Your task to perform on an android device: Open Youtube and go to the subscriptions tab Image 0: 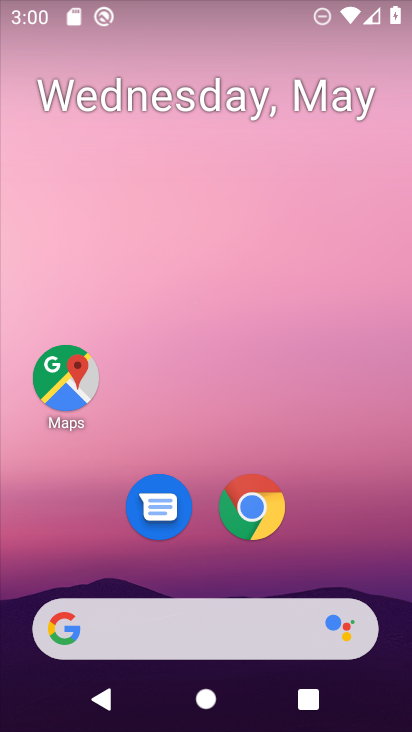
Step 0: drag from (215, 570) to (287, 106)
Your task to perform on an android device: Open Youtube and go to the subscriptions tab Image 1: 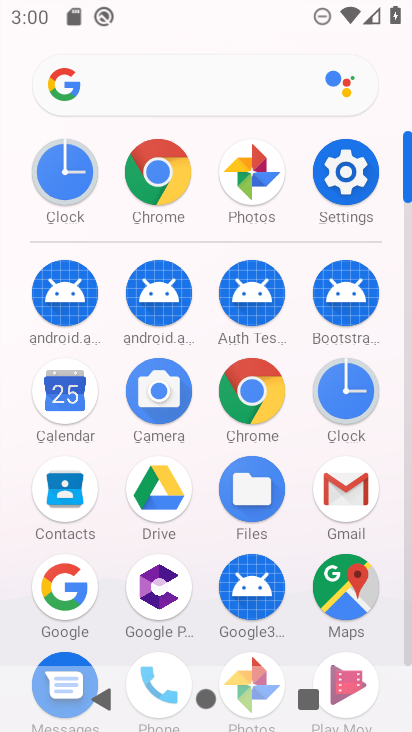
Step 1: drag from (300, 604) to (311, 314)
Your task to perform on an android device: Open Youtube and go to the subscriptions tab Image 2: 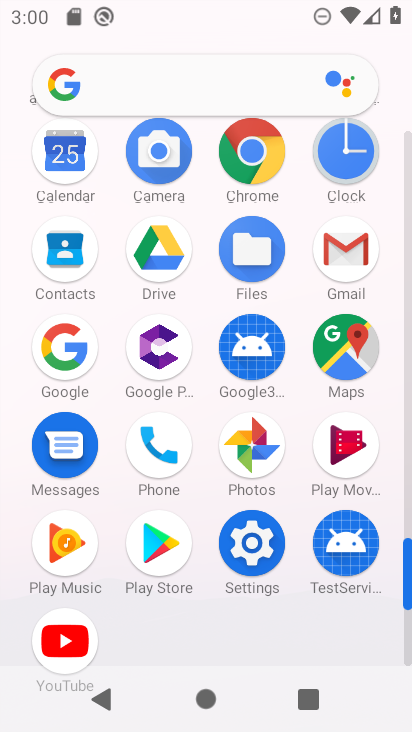
Step 2: click (61, 639)
Your task to perform on an android device: Open Youtube and go to the subscriptions tab Image 3: 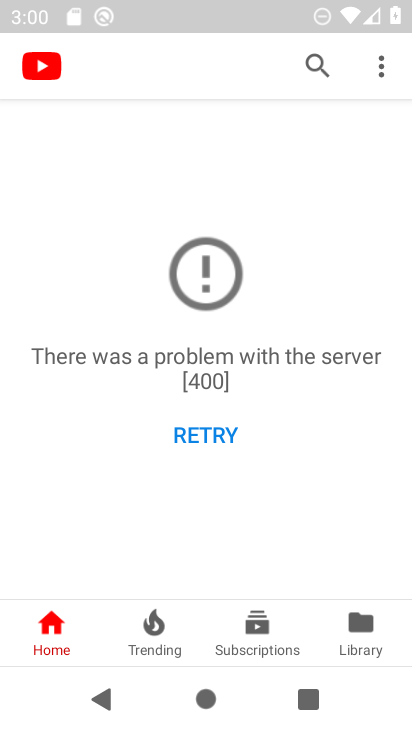
Step 3: click (386, 68)
Your task to perform on an android device: Open Youtube and go to the subscriptions tab Image 4: 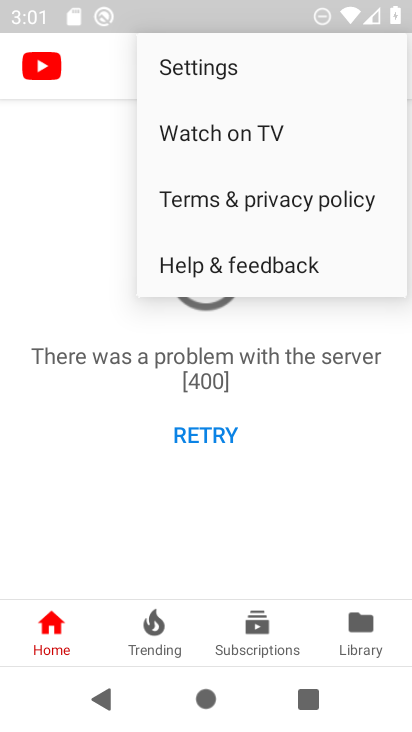
Step 4: click (229, 78)
Your task to perform on an android device: Open Youtube and go to the subscriptions tab Image 5: 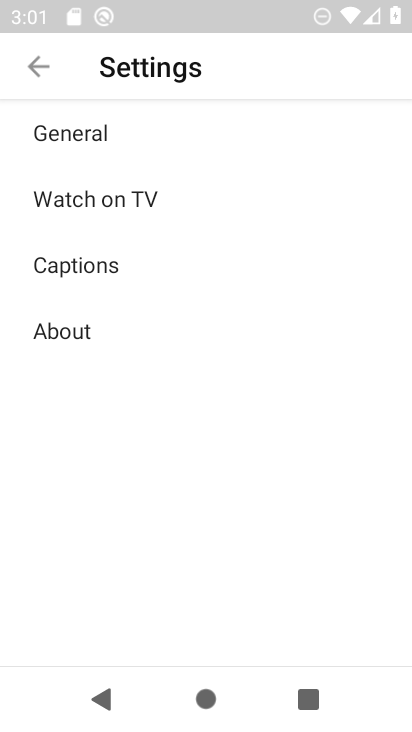
Step 5: task complete